Your task to perform on an android device: Go to calendar. Show me events next week Image 0: 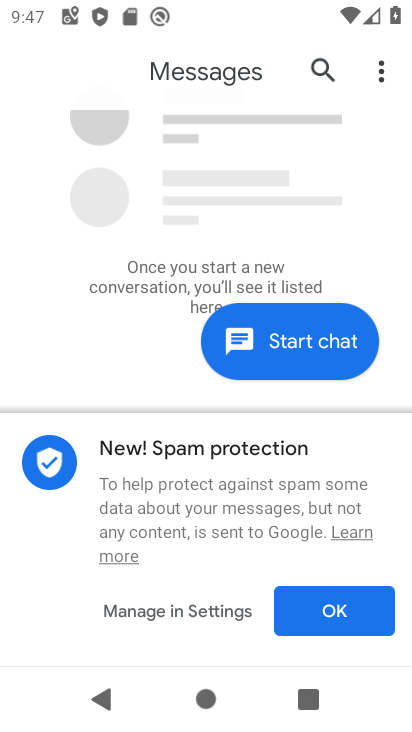
Step 0: press home button
Your task to perform on an android device: Go to calendar. Show me events next week Image 1: 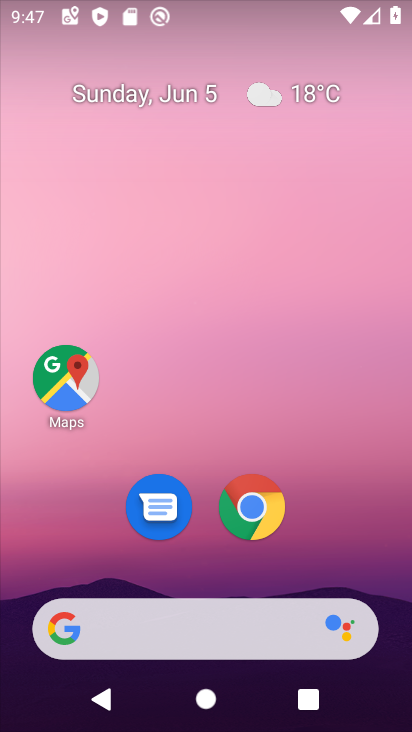
Step 1: drag from (185, 562) to (291, 25)
Your task to perform on an android device: Go to calendar. Show me events next week Image 2: 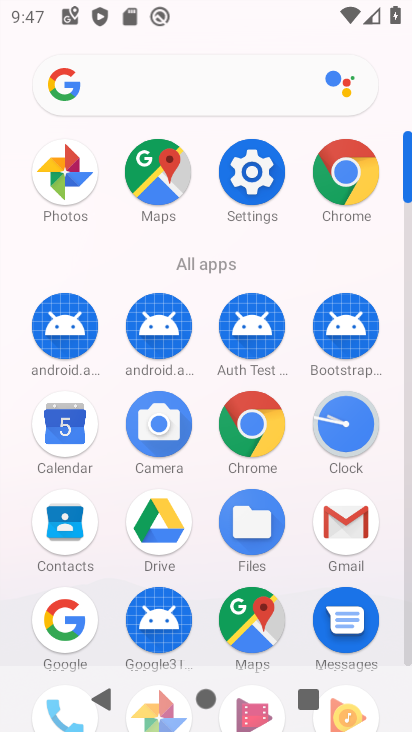
Step 2: click (74, 453)
Your task to perform on an android device: Go to calendar. Show me events next week Image 3: 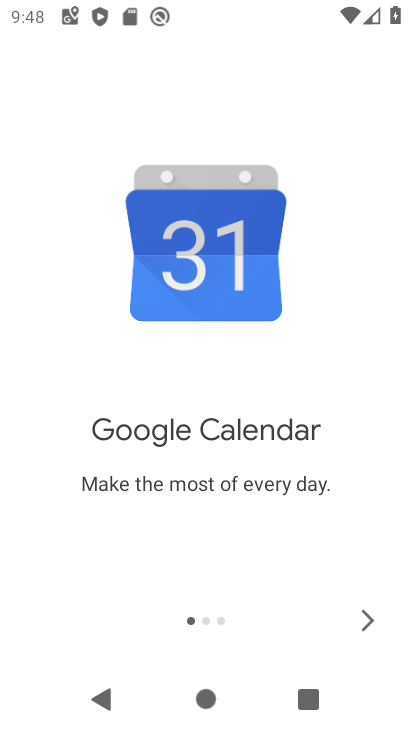
Step 3: click (363, 627)
Your task to perform on an android device: Go to calendar. Show me events next week Image 4: 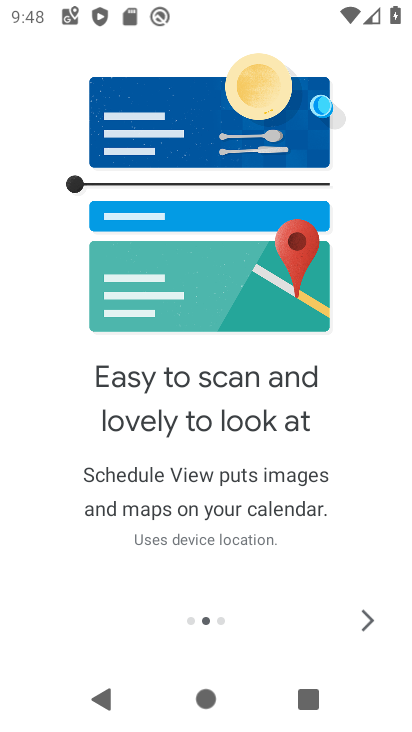
Step 4: click (362, 622)
Your task to perform on an android device: Go to calendar. Show me events next week Image 5: 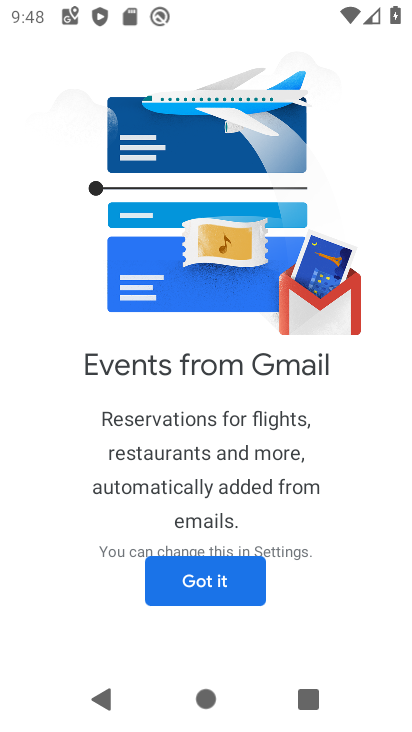
Step 5: click (201, 576)
Your task to perform on an android device: Go to calendar. Show me events next week Image 6: 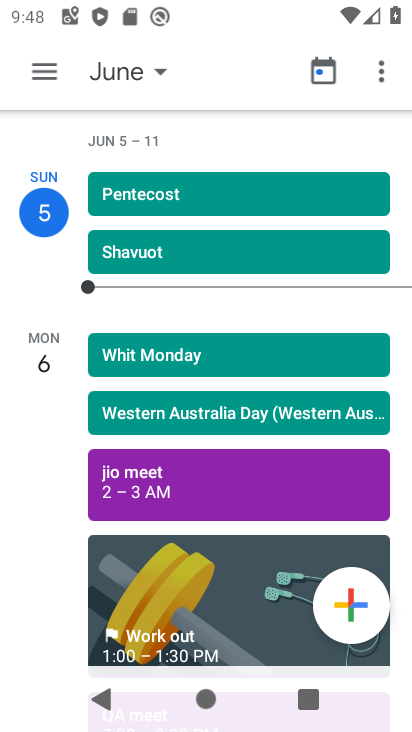
Step 6: click (47, 62)
Your task to perform on an android device: Go to calendar. Show me events next week Image 7: 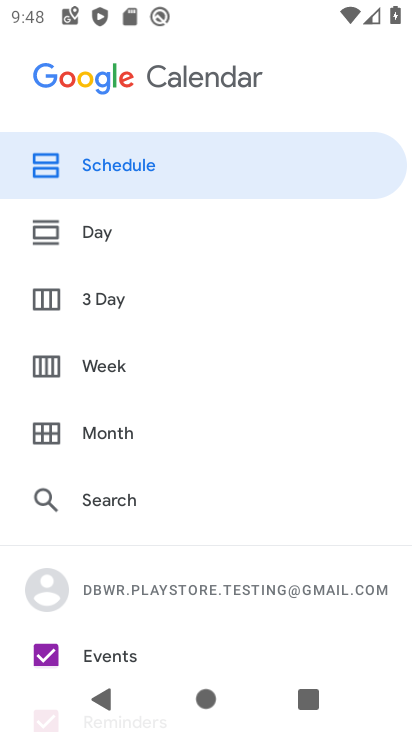
Step 7: drag from (112, 623) to (129, 373)
Your task to perform on an android device: Go to calendar. Show me events next week Image 8: 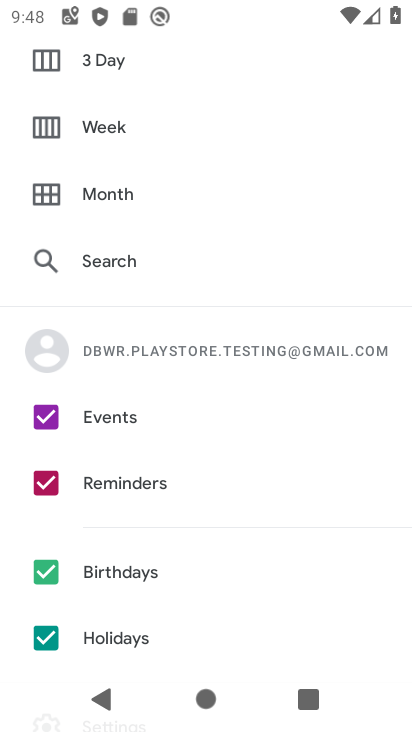
Step 8: click (82, 486)
Your task to perform on an android device: Go to calendar. Show me events next week Image 9: 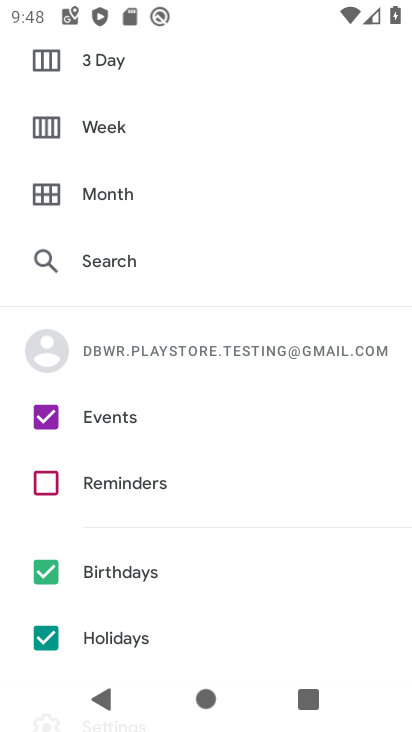
Step 9: click (56, 558)
Your task to perform on an android device: Go to calendar. Show me events next week Image 10: 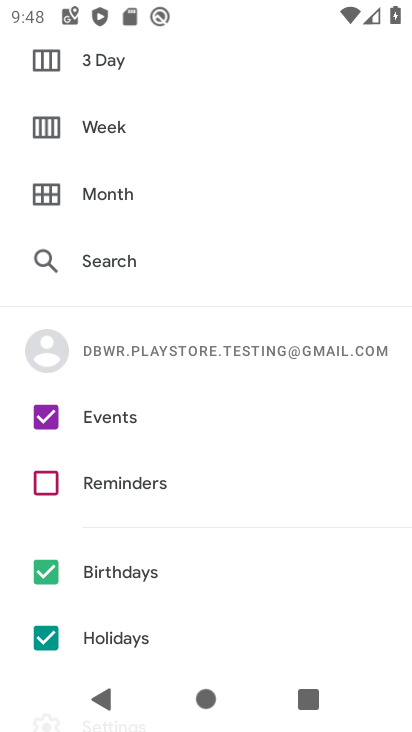
Step 10: click (54, 626)
Your task to perform on an android device: Go to calendar. Show me events next week Image 11: 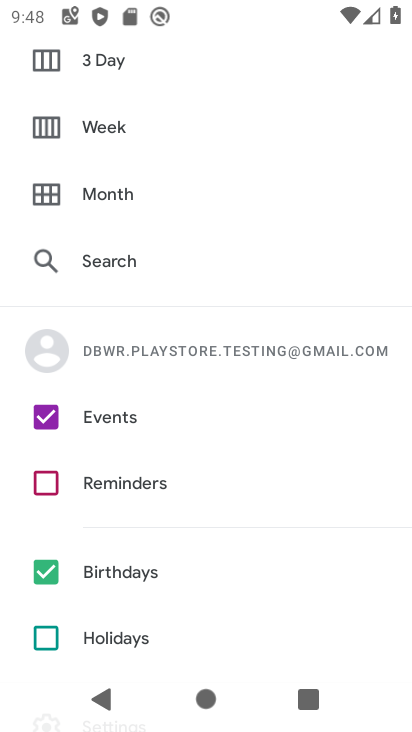
Step 11: click (46, 570)
Your task to perform on an android device: Go to calendar. Show me events next week Image 12: 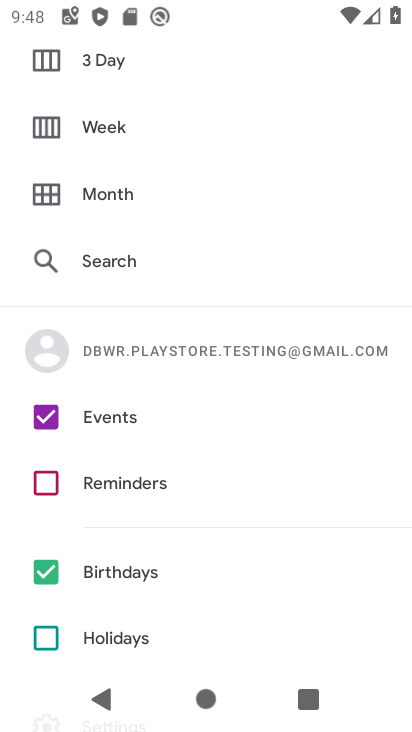
Step 12: click (98, 581)
Your task to perform on an android device: Go to calendar. Show me events next week Image 13: 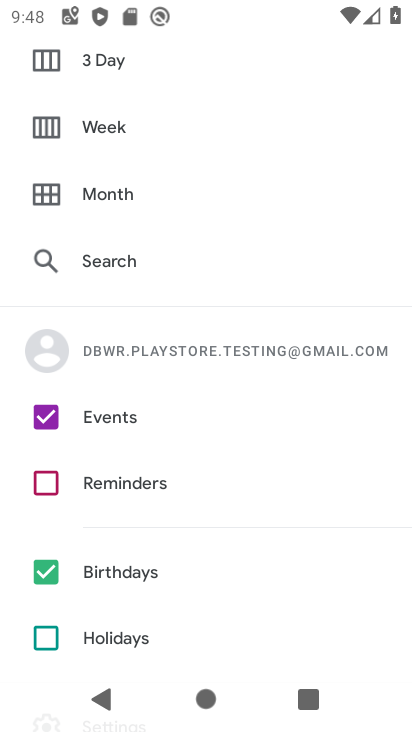
Step 13: click (101, 577)
Your task to perform on an android device: Go to calendar. Show me events next week Image 14: 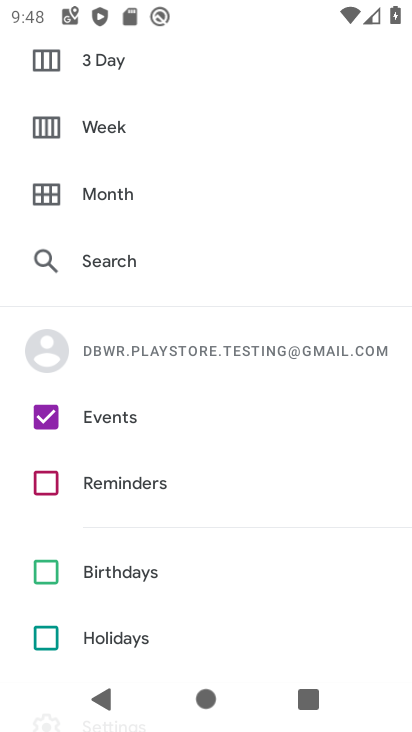
Step 14: click (116, 143)
Your task to perform on an android device: Go to calendar. Show me events next week Image 15: 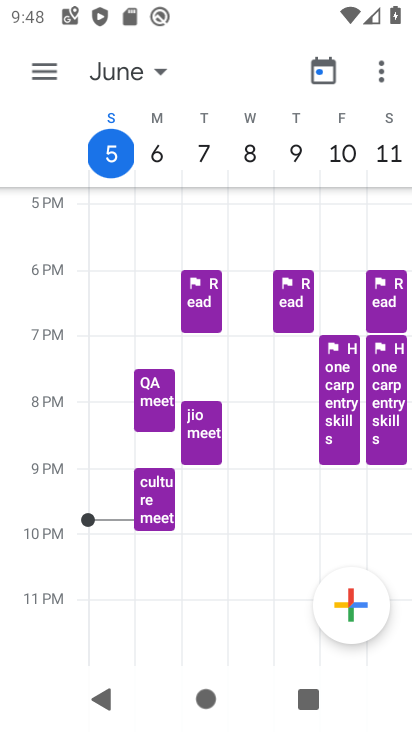
Step 15: task complete